Your task to perform on an android device: turn off location history Image 0: 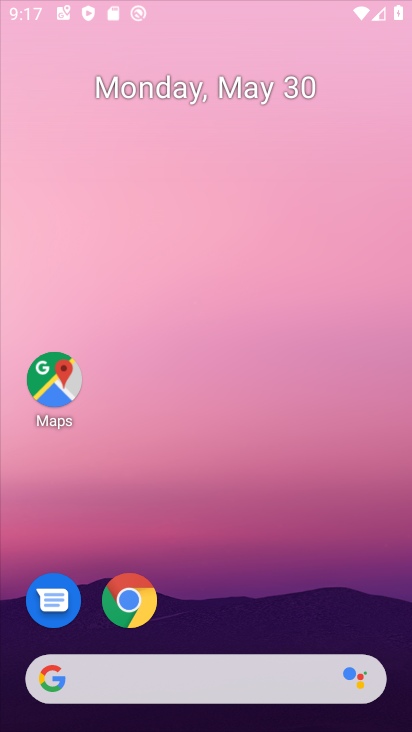
Step 0: press home button
Your task to perform on an android device: turn off location history Image 1: 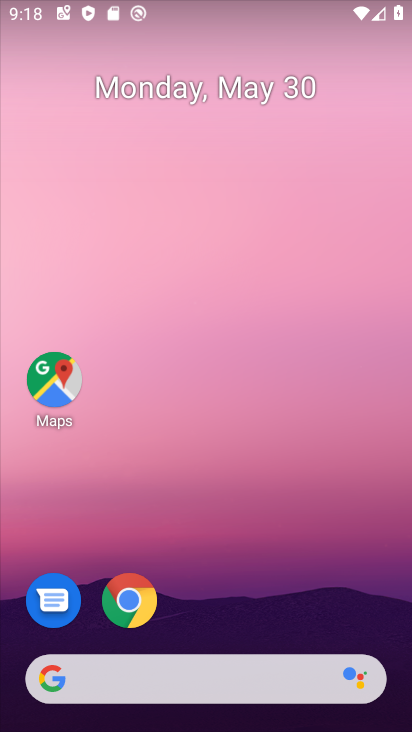
Step 1: drag from (216, 595) to (196, 279)
Your task to perform on an android device: turn off location history Image 2: 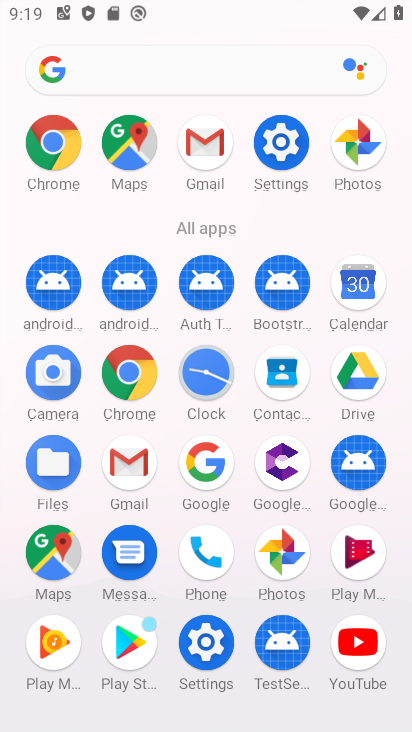
Step 2: click (283, 153)
Your task to perform on an android device: turn off location history Image 3: 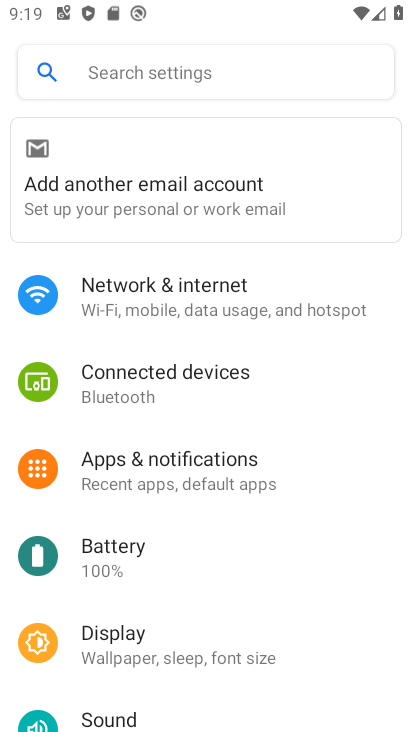
Step 3: drag from (189, 598) to (192, 345)
Your task to perform on an android device: turn off location history Image 4: 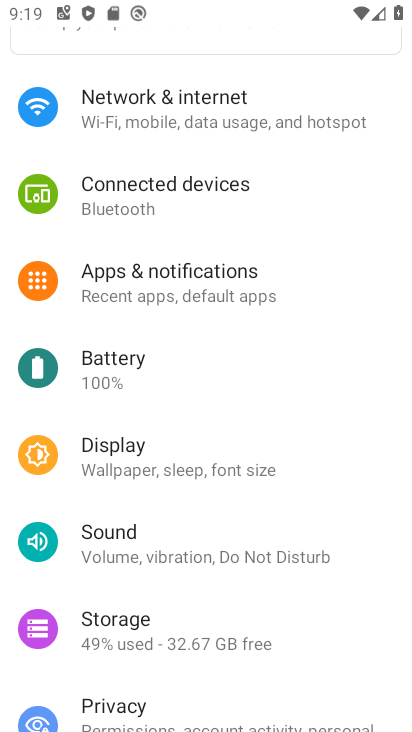
Step 4: drag from (300, 527) to (311, 229)
Your task to perform on an android device: turn off location history Image 5: 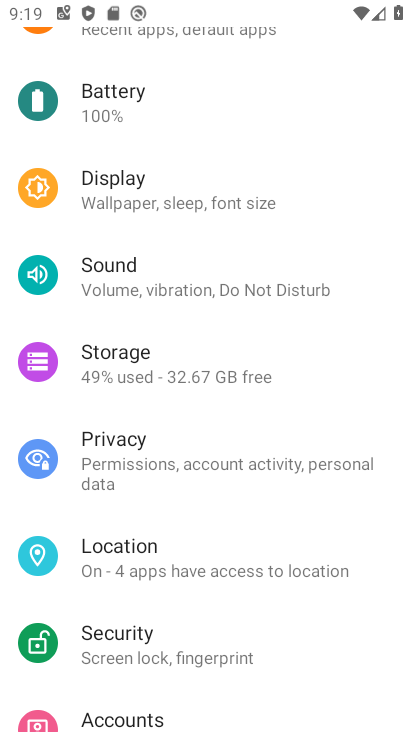
Step 5: click (145, 556)
Your task to perform on an android device: turn off location history Image 6: 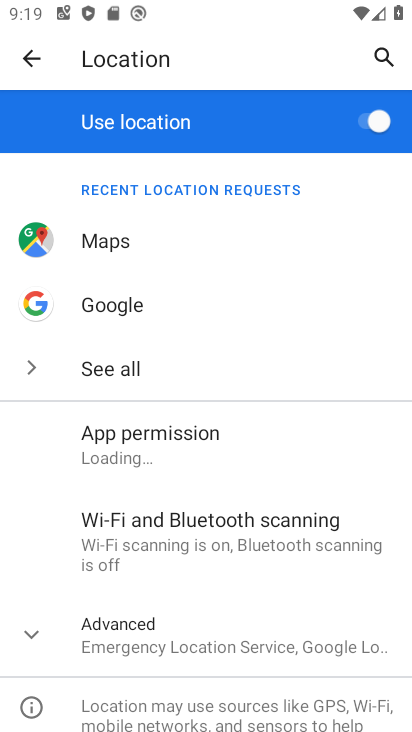
Step 6: click (132, 650)
Your task to perform on an android device: turn off location history Image 7: 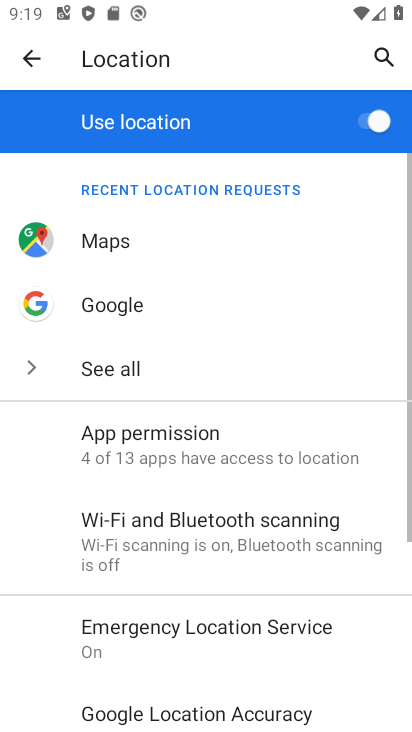
Step 7: drag from (275, 572) to (316, 259)
Your task to perform on an android device: turn off location history Image 8: 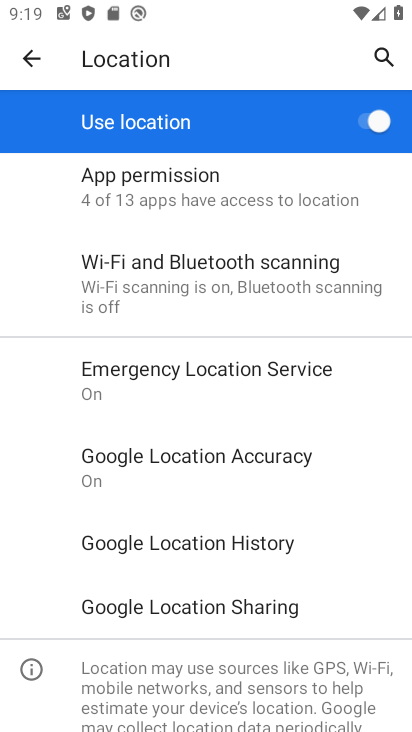
Step 8: click (207, 551)
Your task to perform on an android device: turn off location history Image 9: 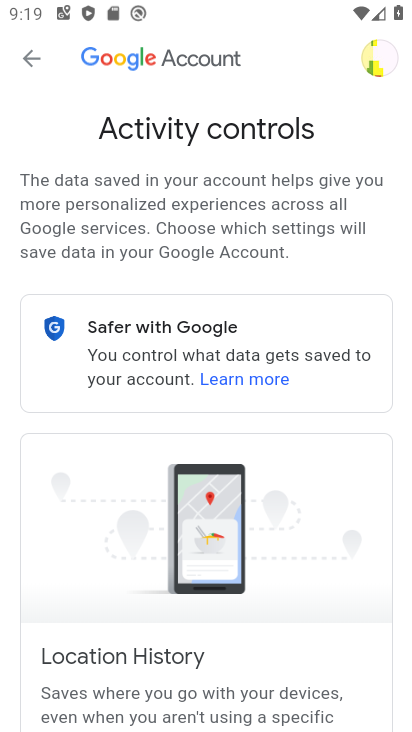
Step 9: drag from (344, 540) to (335, 180)
Your task to perform on an android device: turn off location history Image 10: 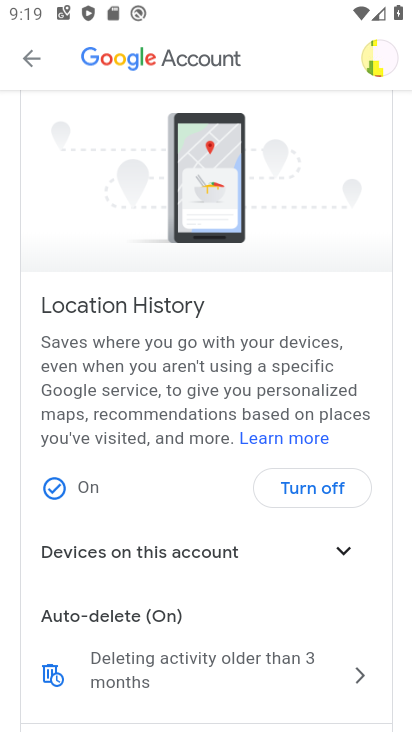
Step 10: click (315, 481)
Your task to perform on an android device: turn off location history Image 11: 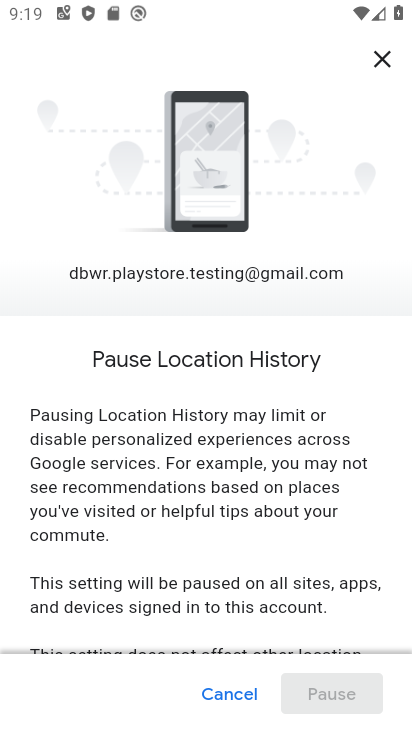
Step 11: drag from (376, 542) to (405, 178)
Your task to perform on an android device: turn off location history Image 12: 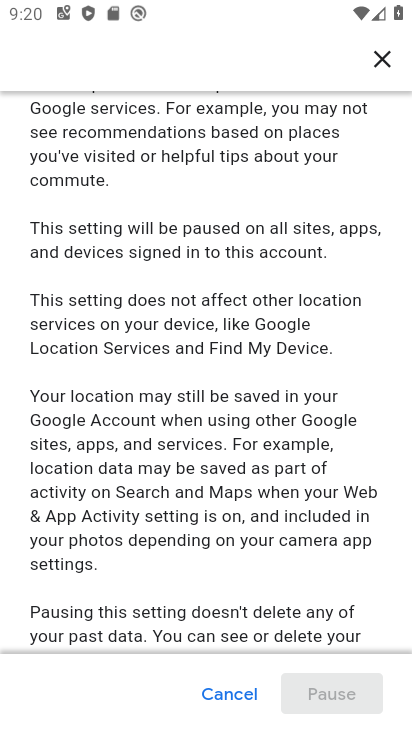
Step 12: drag from (332, 575) to (352, 1)
Your task to perform on an android device: turn off location history Image 13: 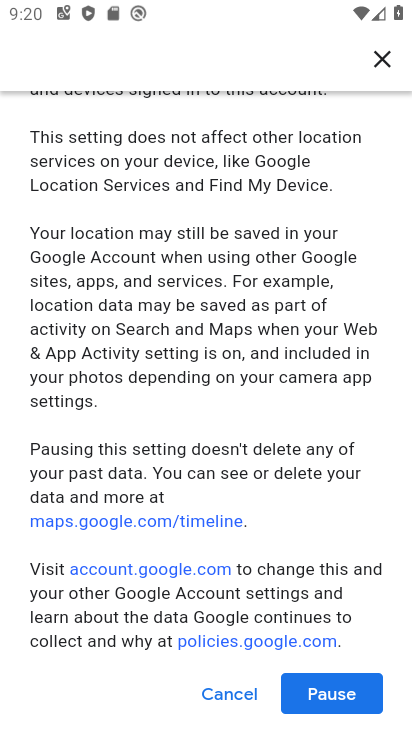
Step 13: click (322, 696)
Your task to perform on an android device: turn off location history Image 14: 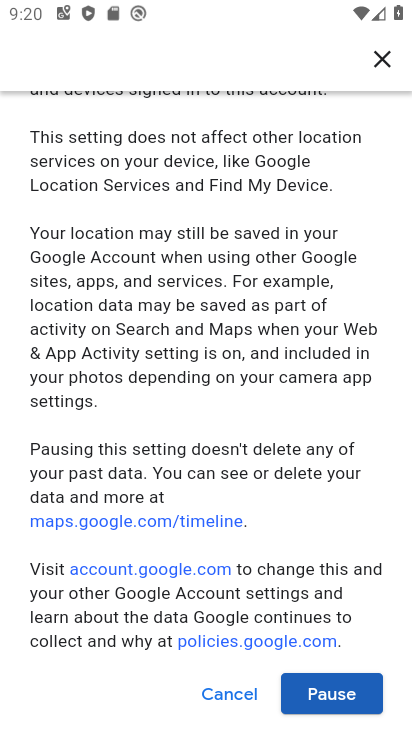
Step 14: task complete